Your task to perform on an android device: change the clock display to analog Image 0: 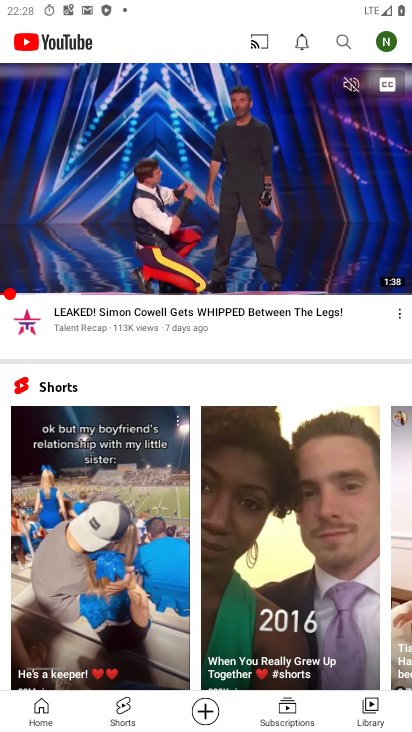
Step 0: press home button
Your task to perform on an android device: change the clock display to analog Image 1: 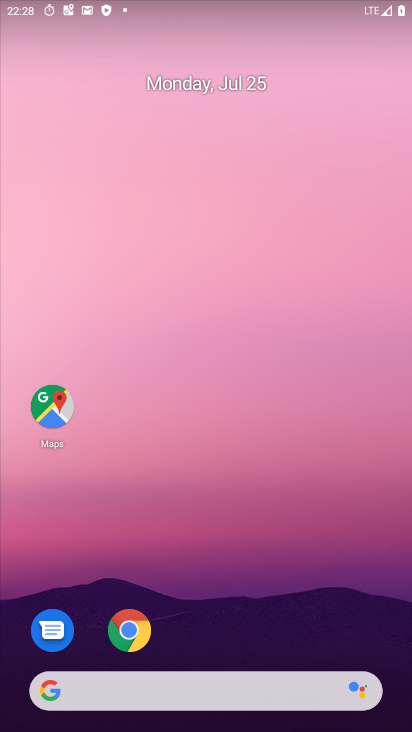
Step 1: drag from (266, 625) to (309, 77)
Your task to perform on an android device: change the clock display to analog Image 2: 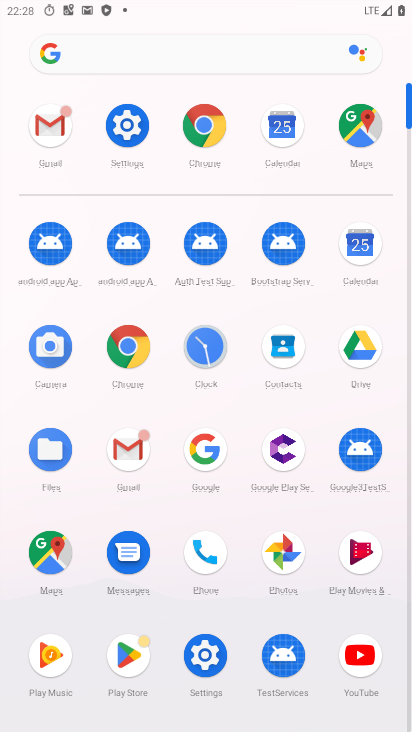
Step 2: click (198, 355)
Your task to perform on an android device: change the clock display to analog Image 3: 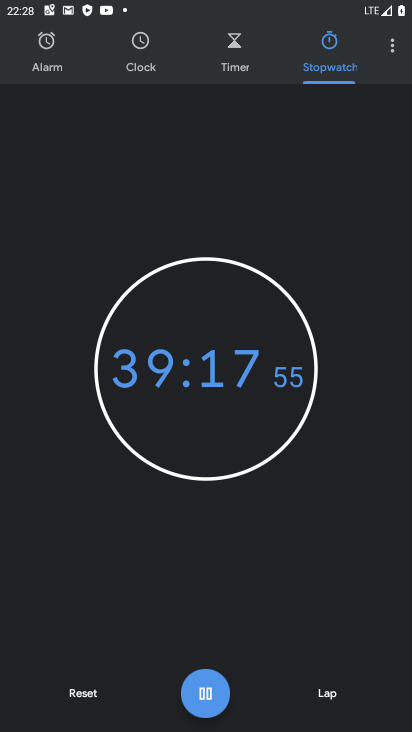
Step 3: click (395, 47)
Your task to perform on an android device: change the clock display to analog Image 4: 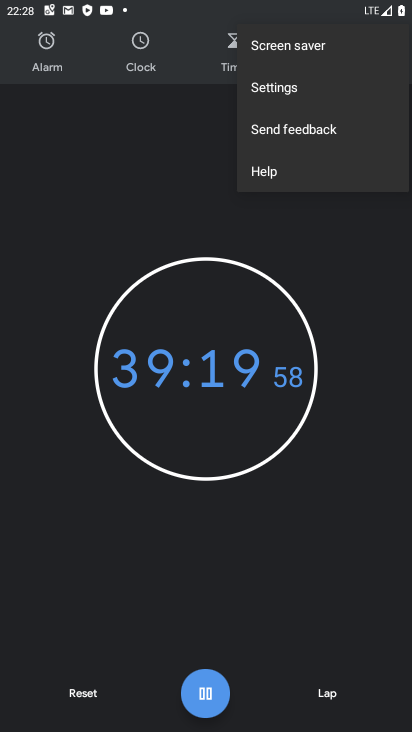
Step 4: click (259, 89)
Your task to perform on an android device: change the clock display to analog Image 5: 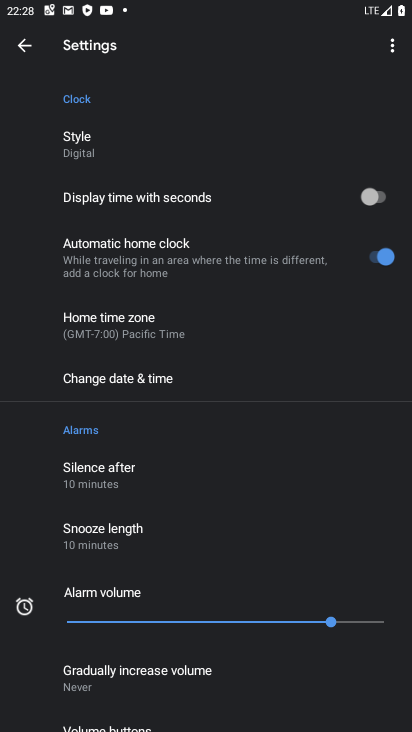
Step 5: click (114, 145)
Your task to perform on an android device: change the clock display to analog Image 6: 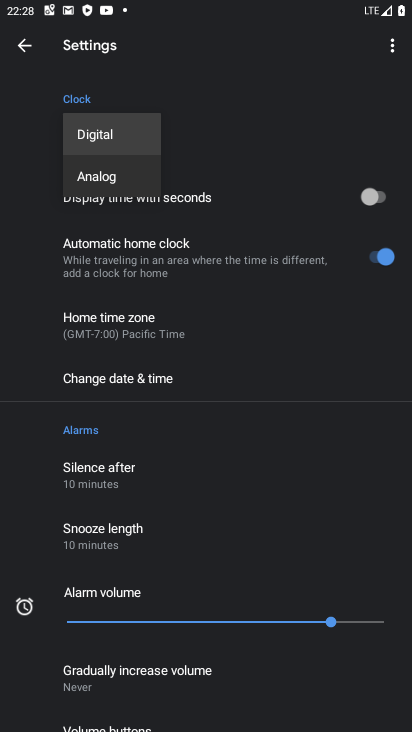
Step 6: click (124, 180)
Your task to perform on an android device: change the clock display to analog Image 7: 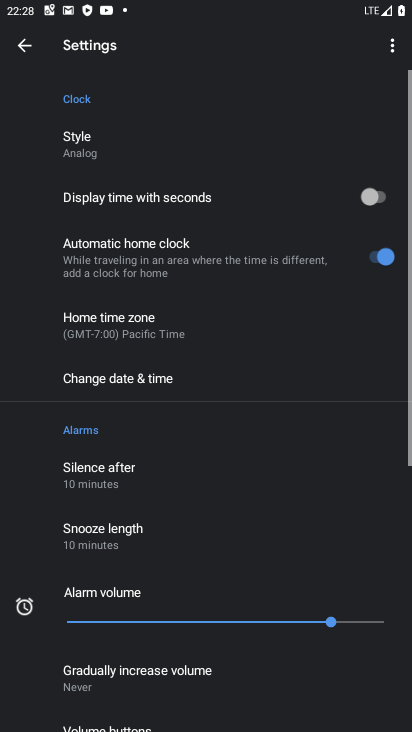
Step 7: task complete